Your task to perform on an android device: open app "Upside-Cash back on gas & food" Image 0: 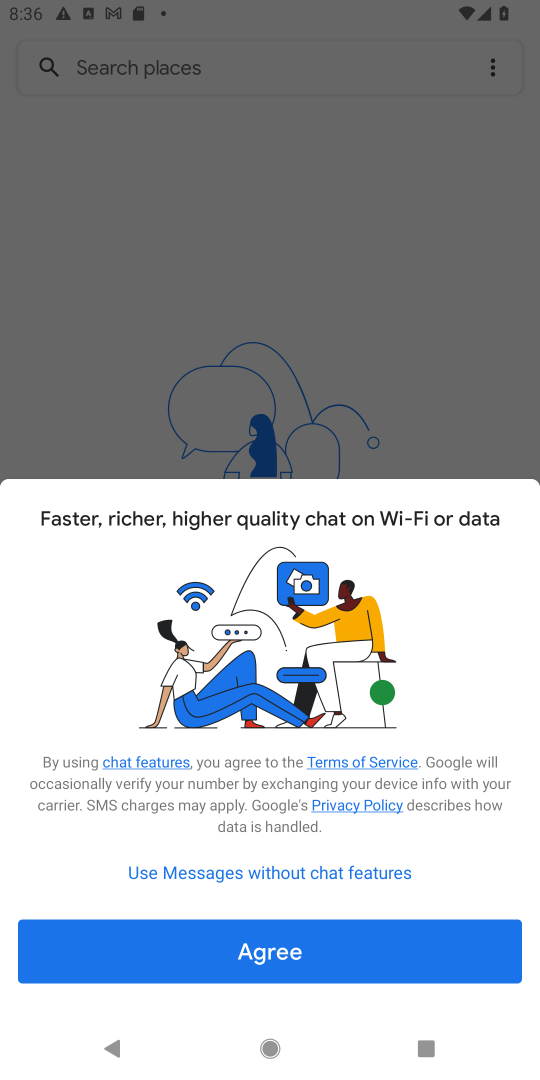
Step 0: press home button
Your task to perform on an android device: open app "Upside-Cash back on gas & food" Image 1: 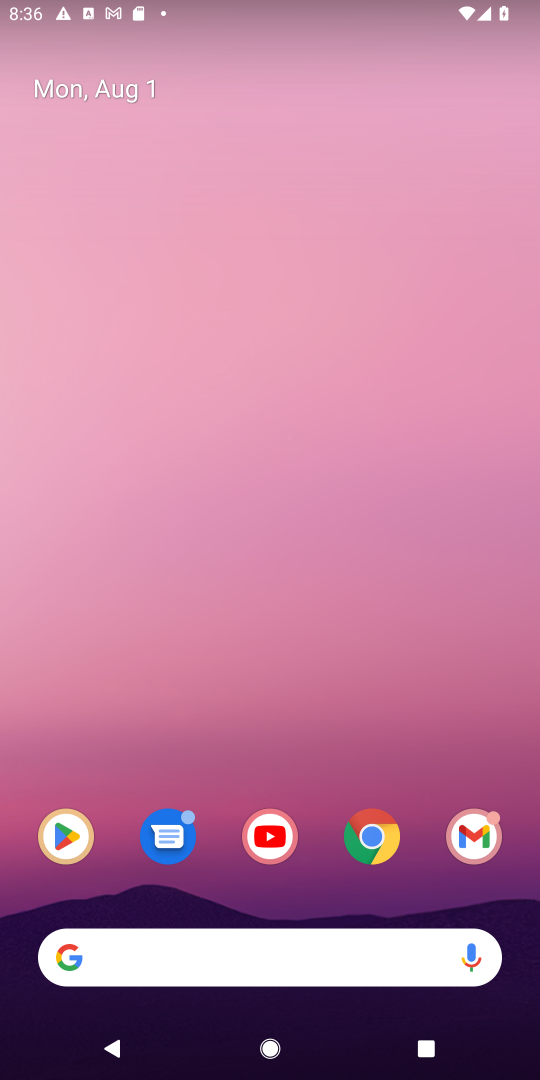
Step 1: click (68, 829)
Your task to perform on an android device: open app "Upside-Cash back on gas & food" Image 2: 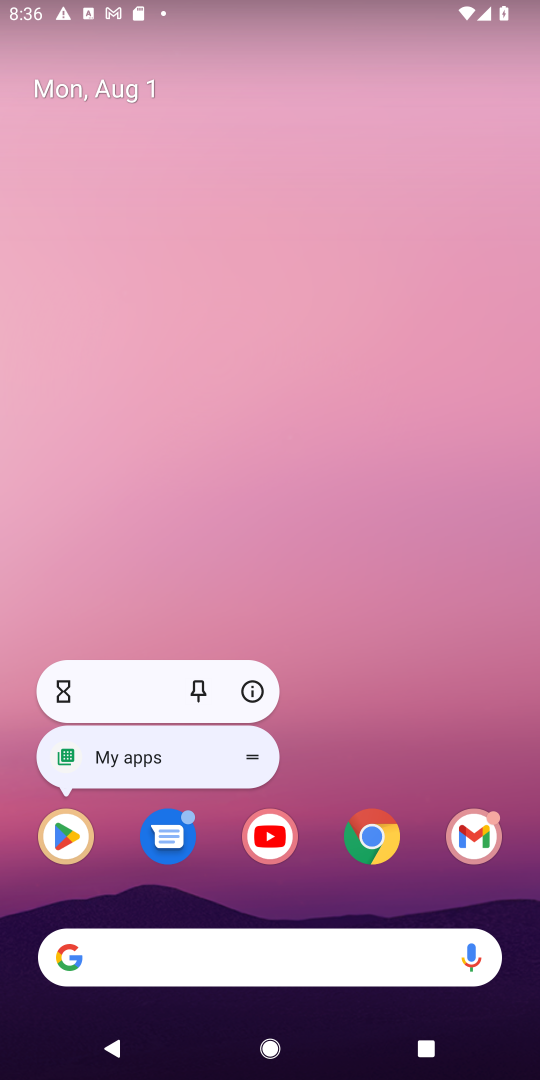
Step 2: click (65, 836)
Your task to perform on an android device: open app "Upside-Cash back on gas & food" Image 3: 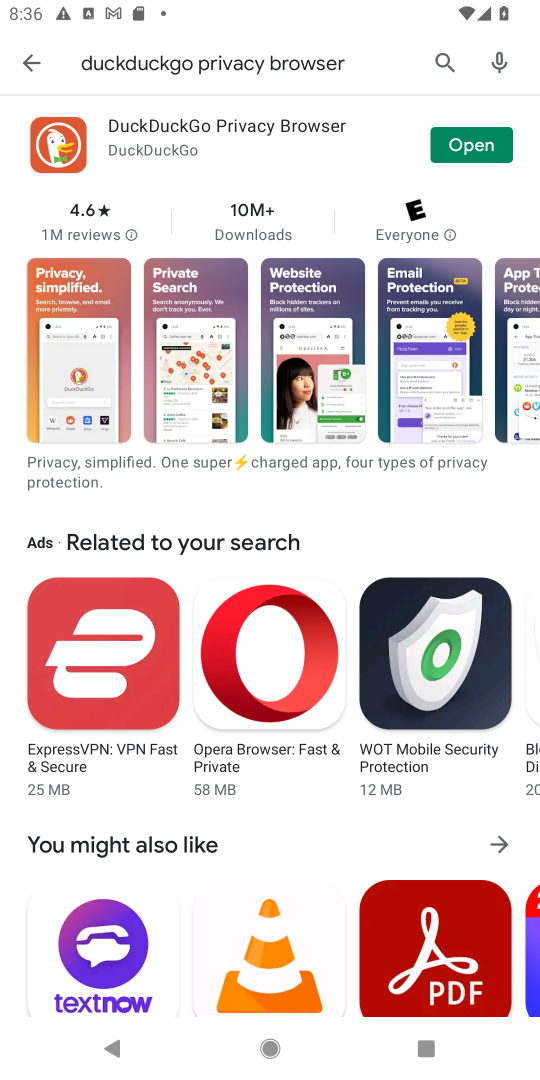
Step 3: click (443, 57)
Your task to perform on an android device: open app "Upside-Cash back on gas & food" Image 4: 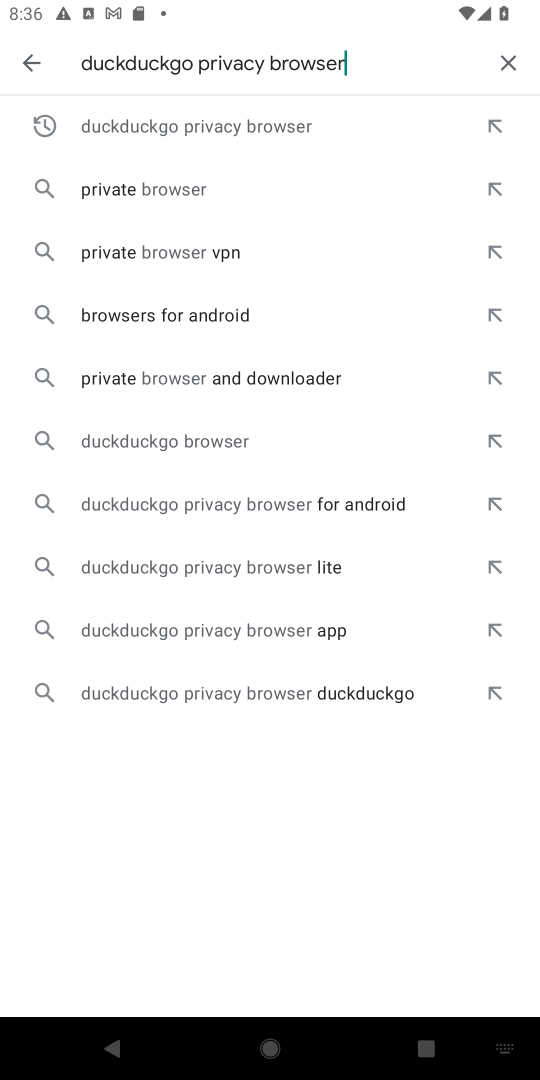
Step 4: click (510, 54)
Your task to perform on an android device: open app "Upside-Cash back on gas & food" Image 5: 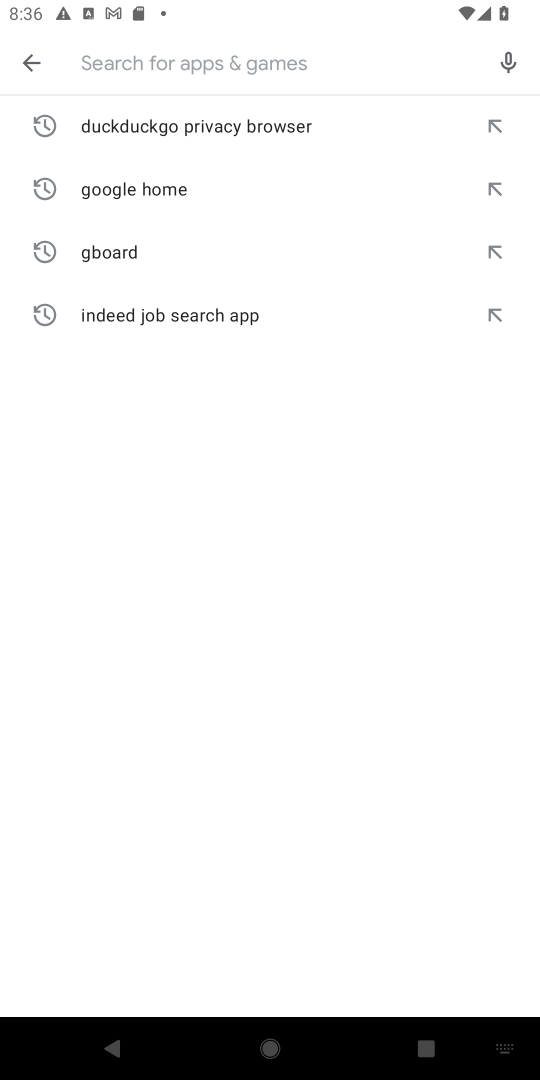
Step 5: type "Upside-Cash back on gas & food"
Your task to perform on an android device: open app "Upside-Cash back on gas & food" Image 6: 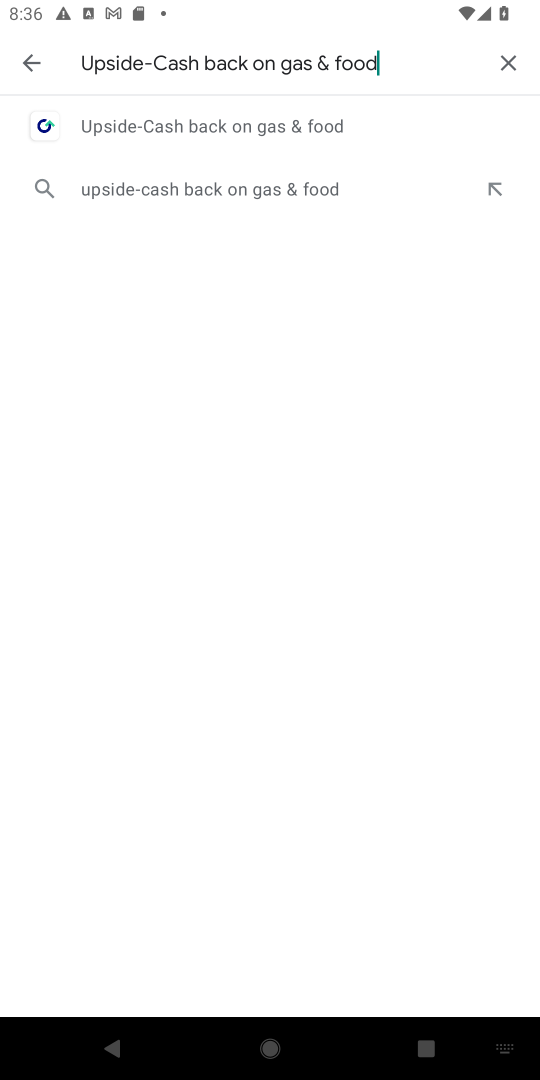
Step 6: click (183, 113)
Your task to perform on an android device: open app "Upside-Cash back on gas & food" Image 7: 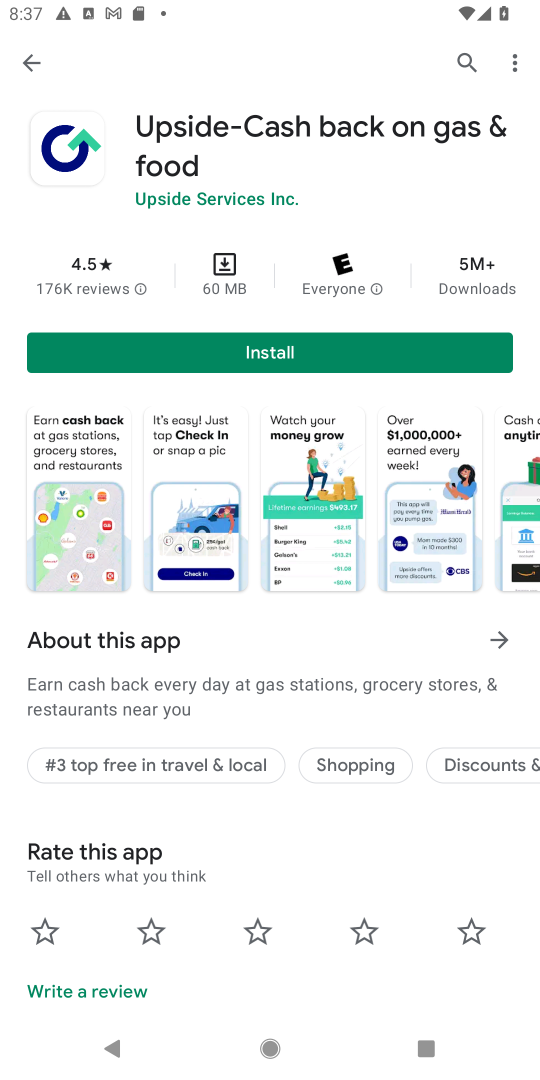
Step 7: task complete